Your task to perform on an android device: Open display settings Image 0: 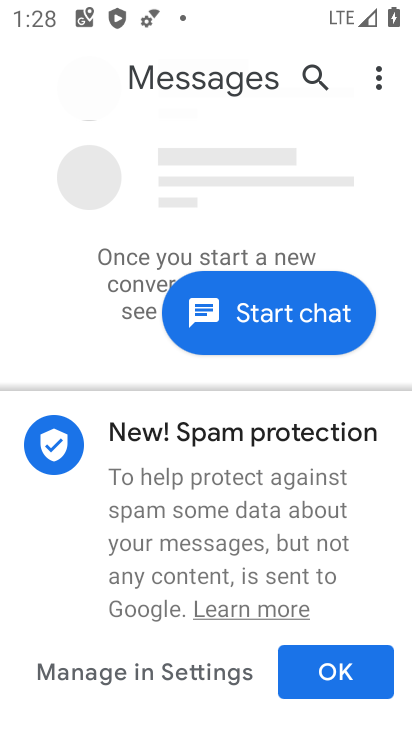
Step 0: press home button
Your task to perform on an android device: Open display settings Image 1: 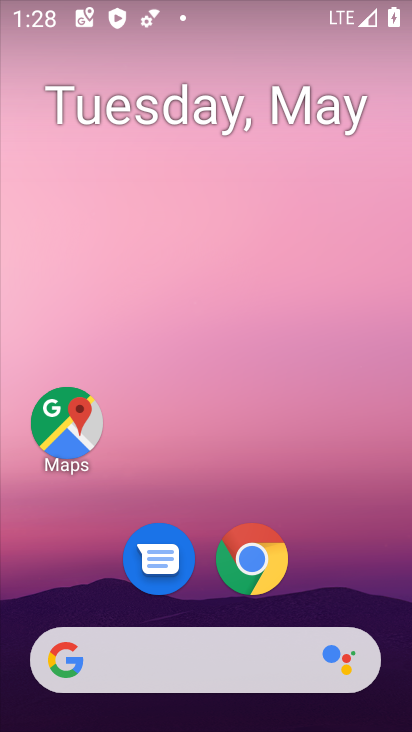
Step 1: drag from (341, 582) to (236, 92)
Your task to perform on an android device: Open display settings Image 2: 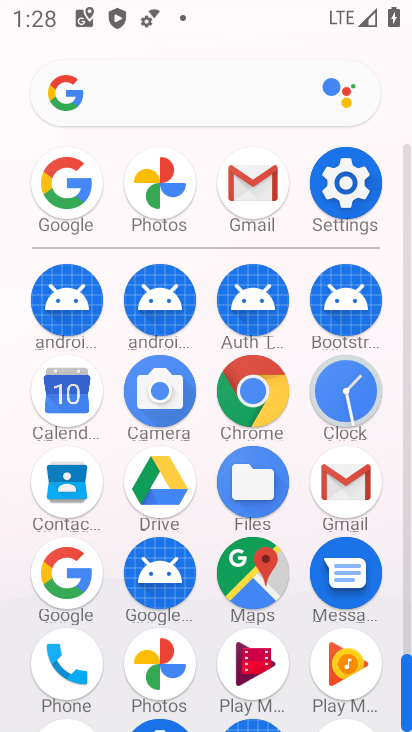
Step 2: click (348, 177)
Your task to perform on an android device: Open display settings Image 3: 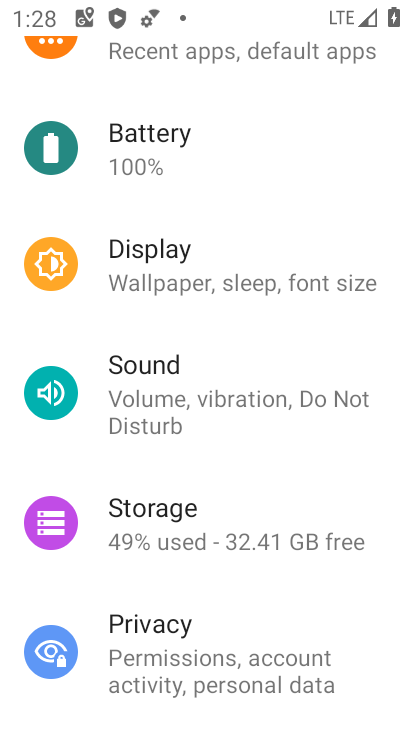
Step 3: click (198, 259)
Your task to perform on an android device: Open display settings Image 4: 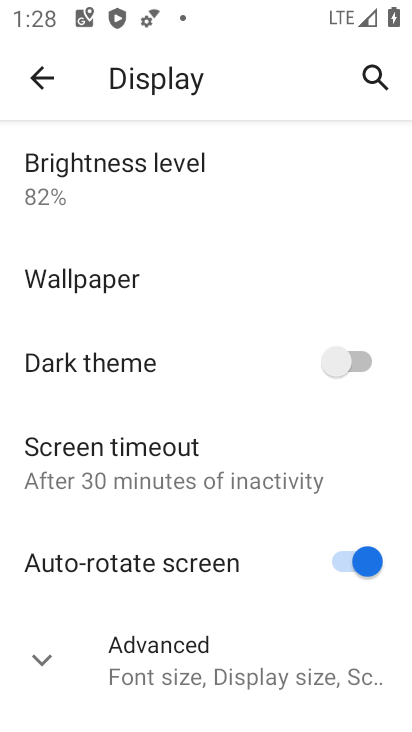
Step 4: task complete